Your task to perform on an android device: turn on airplane mode Image 0: 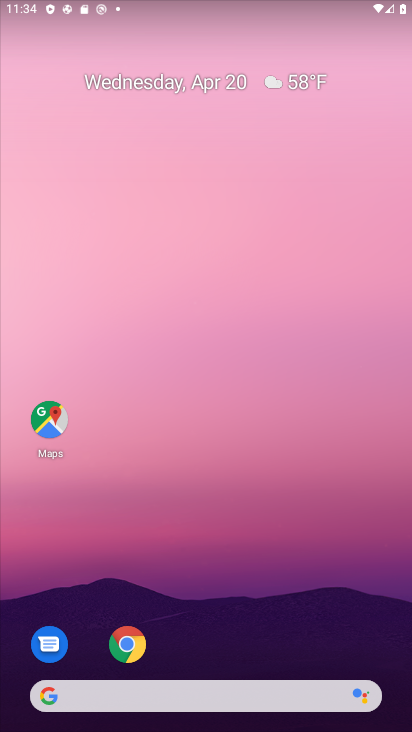
Step 0: drag from (232, 639) to (215, 40)
Your task to perform on an android device: turn on airplane mode Image 1: 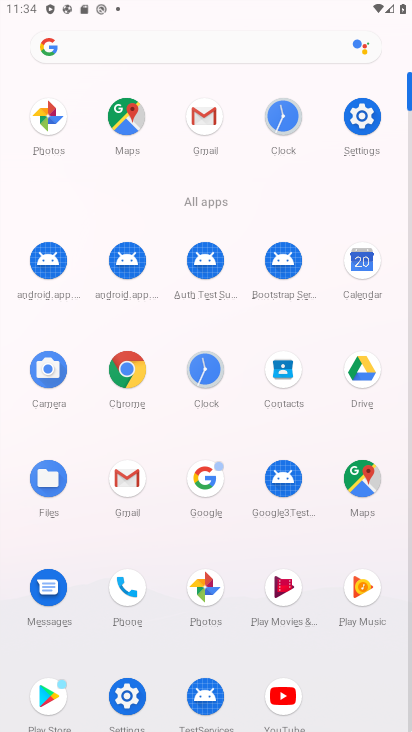
Step 1: click (360, 115)
Your task to perform on an android device: turn on airplane mode Image 2: 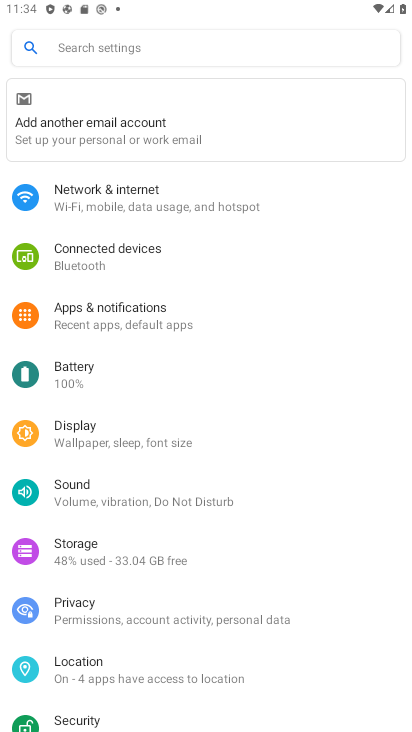
Step 2: click (158, 577)
Your task to perform on an android device: turn on airplane mode Image 3: 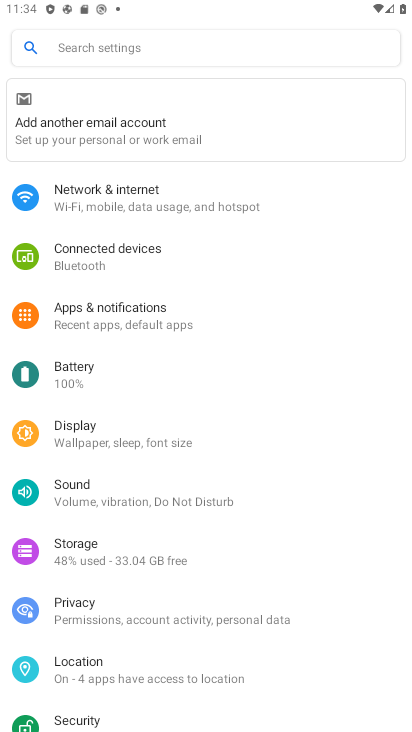
Step 3: click (186, 199)
Your task to perform on an android device: turn on airplane mode Image 4: 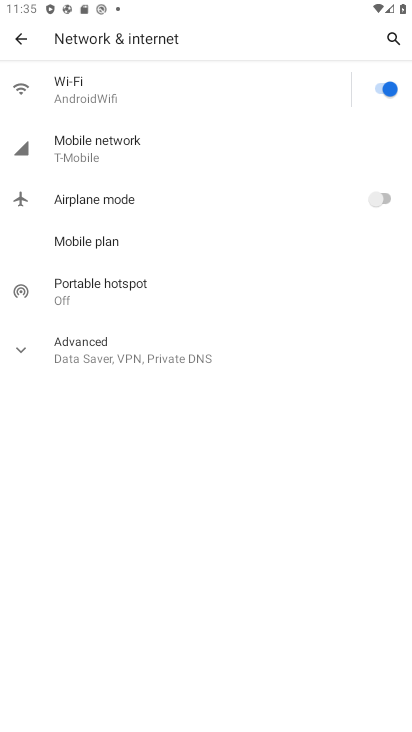
Step 4: click (379, 199)
Your task to perform on an android device: turn on airplane mode Image 5: 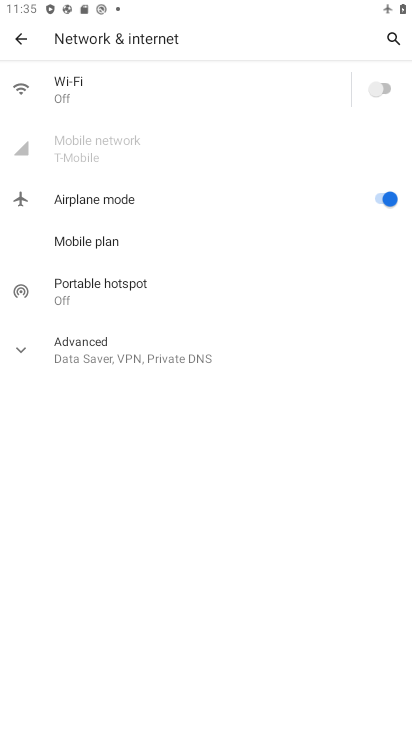
Step 5: task complete